Your task to perform on an android device: open app "Google Play Music" Image 0: 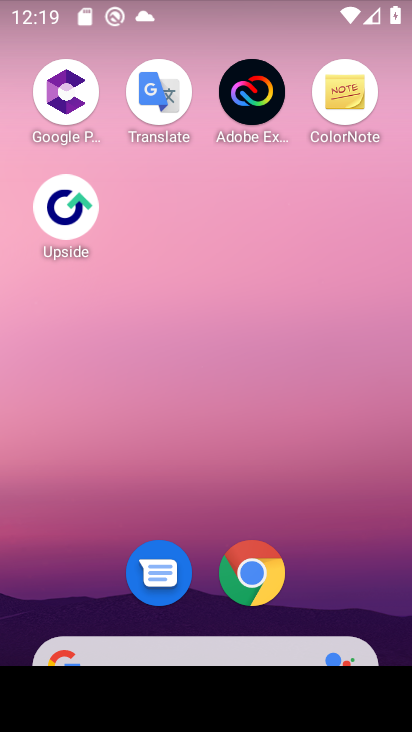
Step 0: drag from (161, 632) to (147, 138)
Your task to perform on an android device: open app "Google Play Music" Image 1: 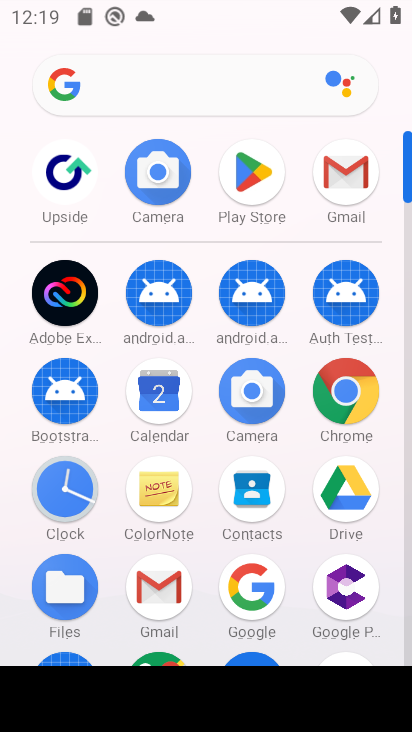
Step 1: click (250, 167)
Your task to perform on an android device: open app "Google Play Music" Image 2: 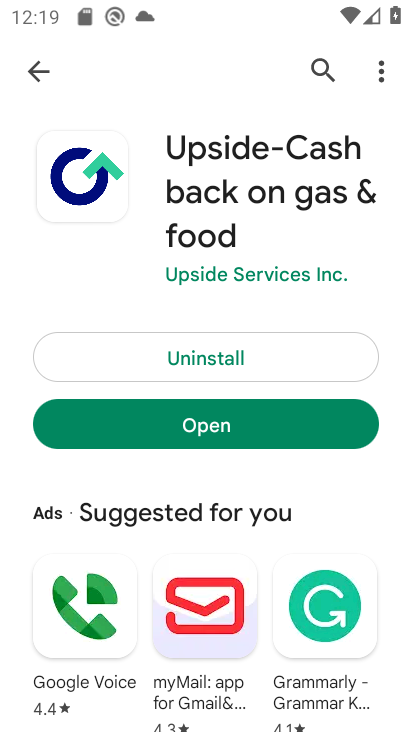
Step 2: click (314, 70)
Your task to perform on an android device: open app "Google Play Music" Image 3: 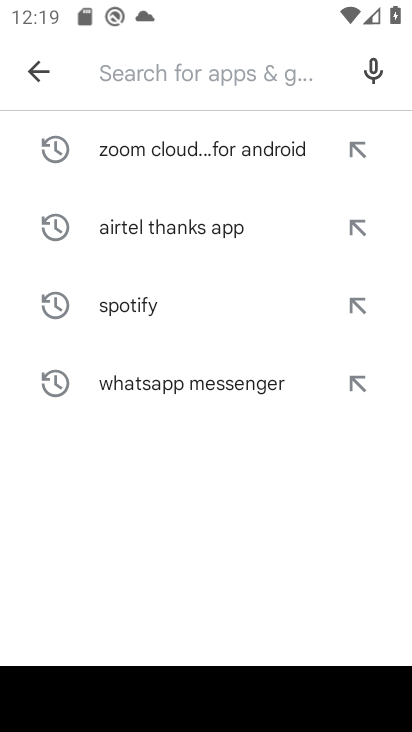
Step 3: type "google play music"
Your task to perform on an android device: open app "Google Play Music" Image 4: 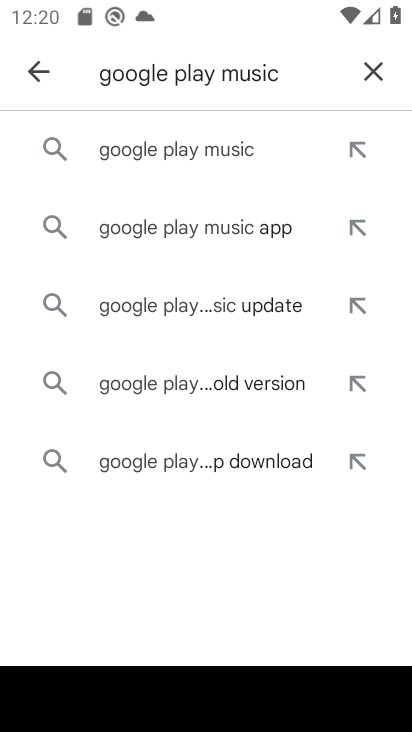
Step 4: click (230, 150)
Your task to perform on an android device: open app "Google Play Music" Image 5: 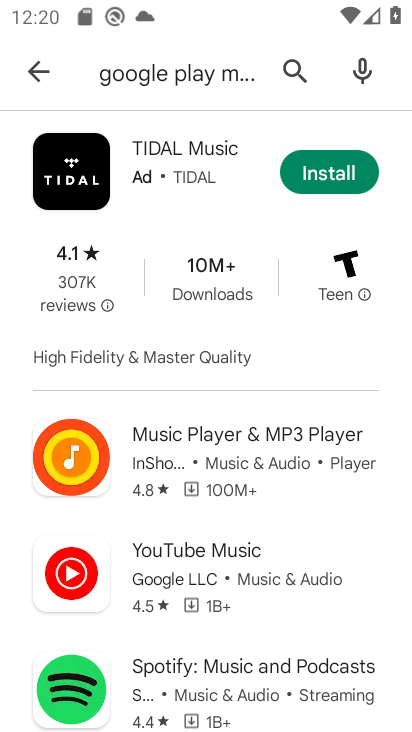
Step 5: task complete